Your task to perform on an android device: Open the settings Image 0: 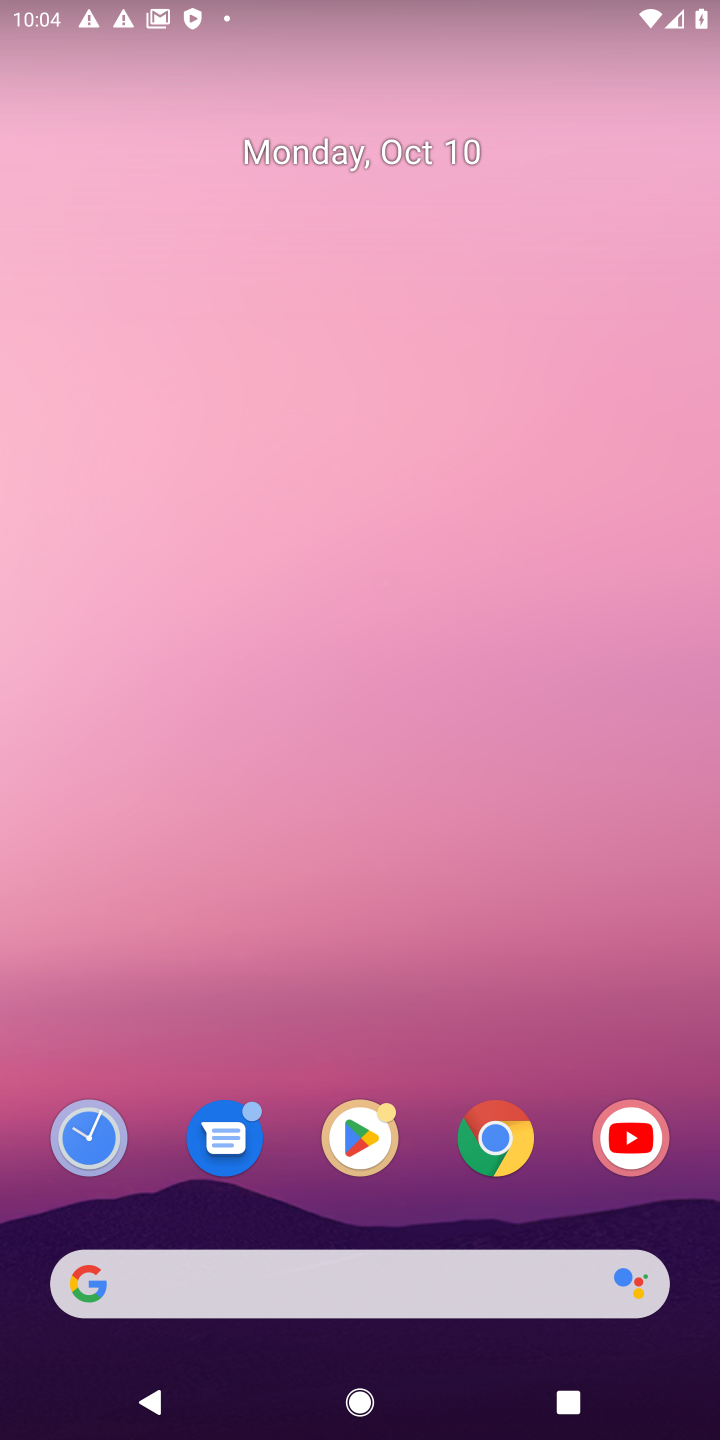
Step 0: drag from (283, 1120) to (360, 329)
Your task to perform on an android device: Open the settings Image 1: 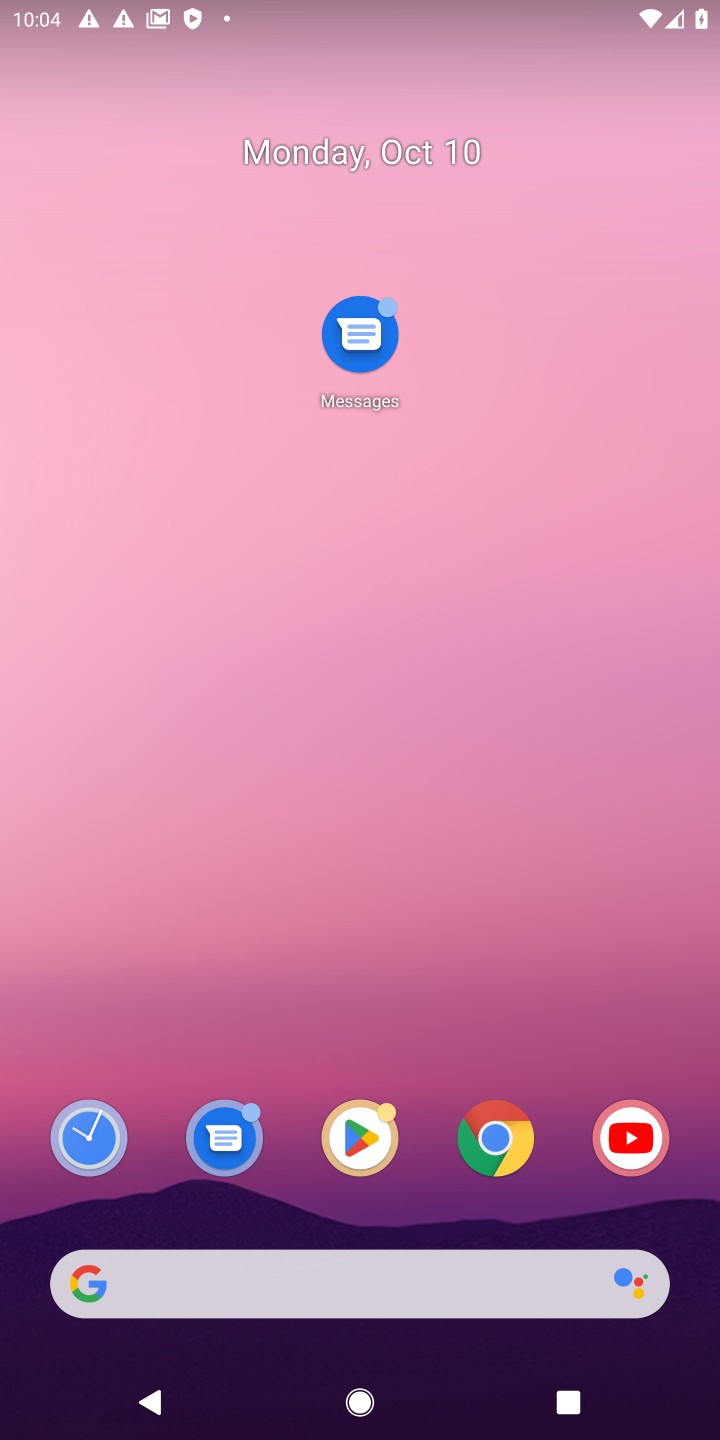
Step 1: drag from (470, 668) to (479, 335)
Your task to perform on an android device: Open the settings Image 2: 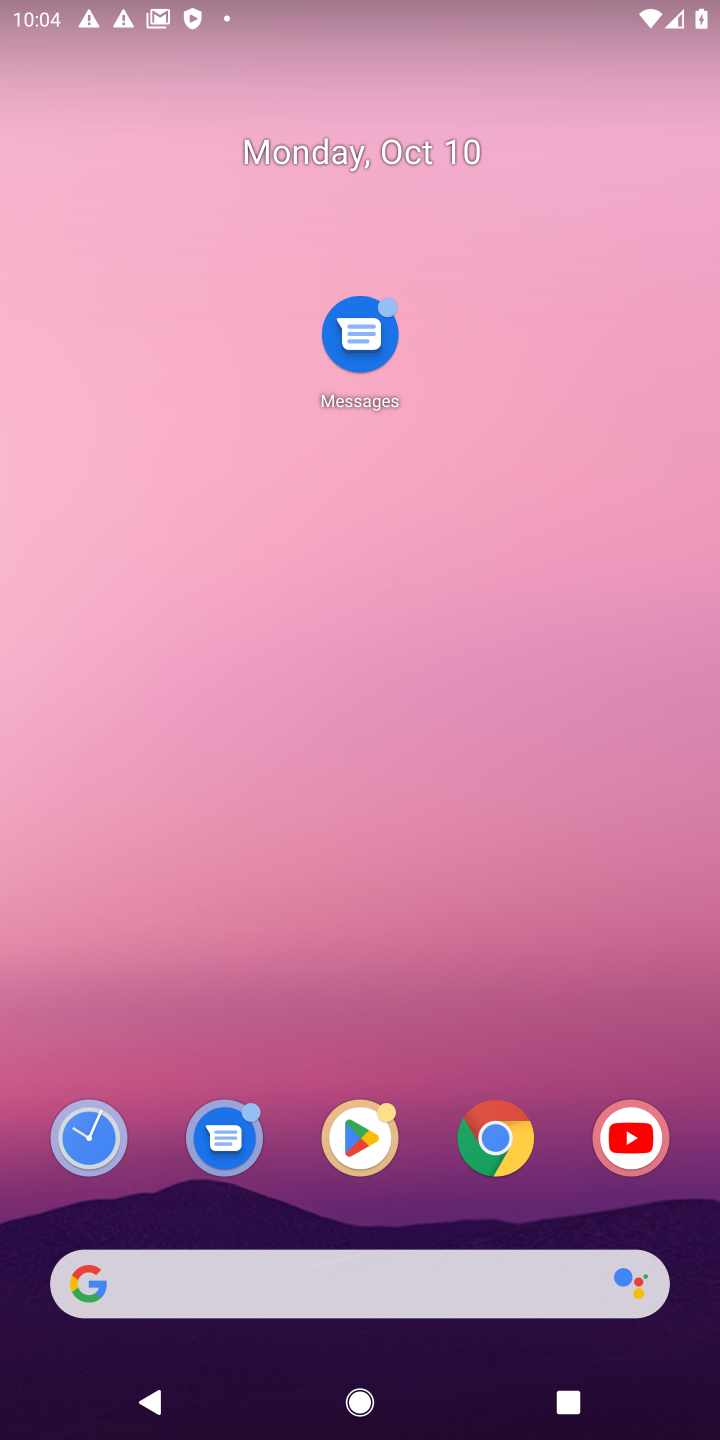
Step 2: drag from (486, 1337) to (480, 283)
Your task to perform on an android device: Open the settings Image 3: 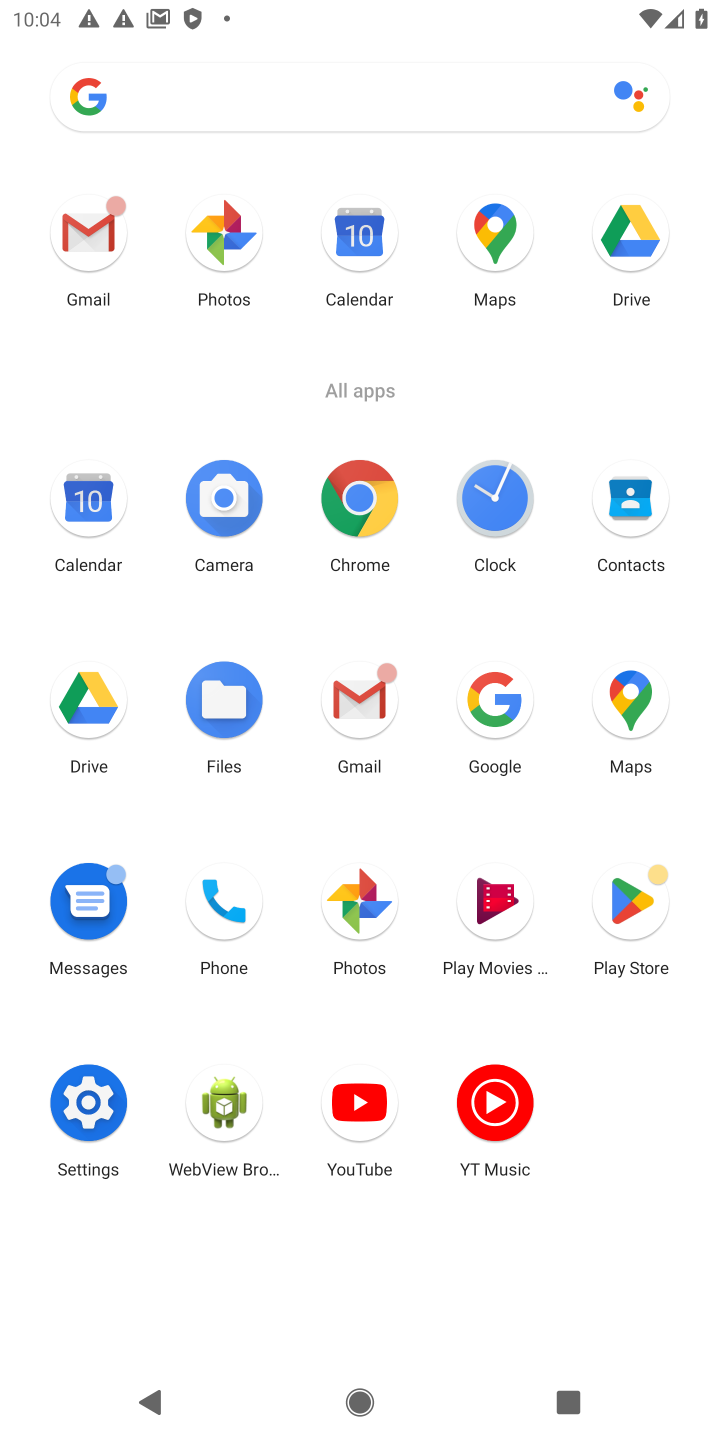
Step 3: click (70, 1123)
Your task to perform on an android device: Open the settings Image 4: 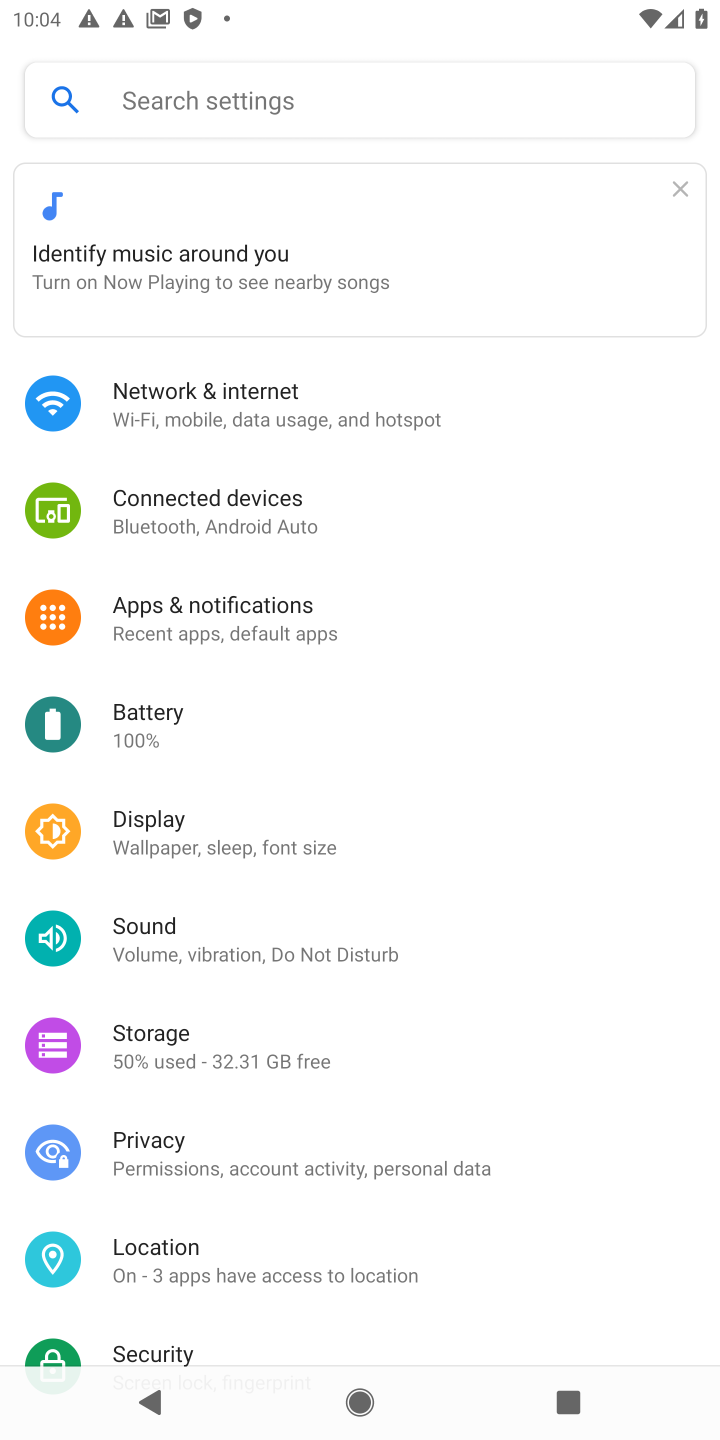
Step 4: task complete